Your task to perform on an android device: What is the recent news? Image 0: 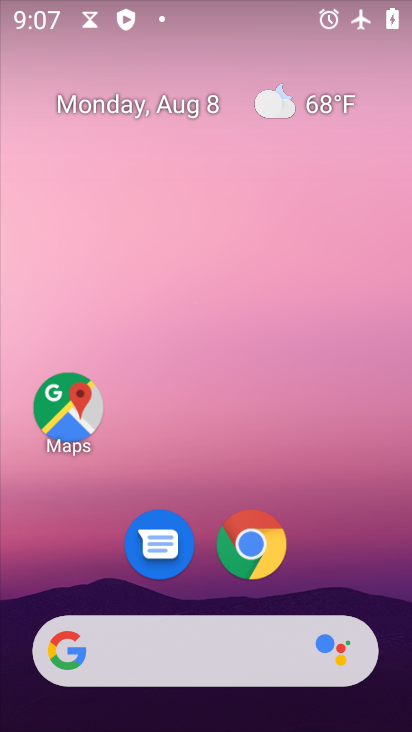
Step 0: drag from (22, 308) to (395, 490)
Your task to perform on an android device: What is the recent news? Image 1: 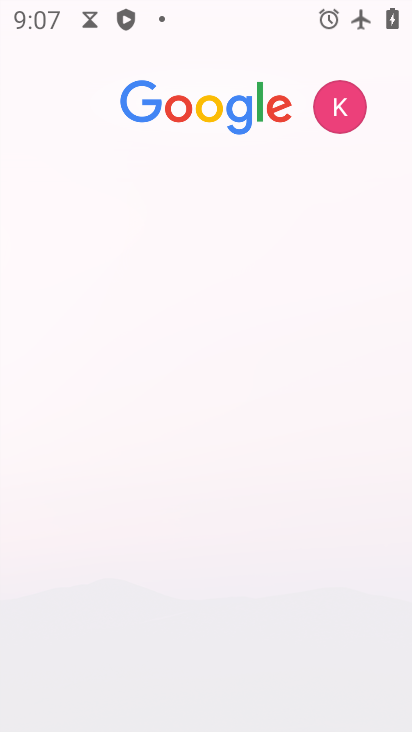
Step 1: task complete